Your task to perform on an android device: all mails in gmail Image 0: 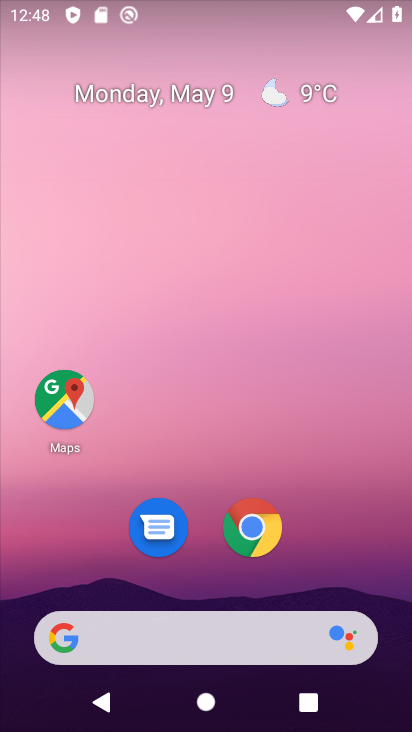
Step 0: drag from (207, 577) to (227, 48)
Your task to perform on an android device: all mails in gmail Image 1: 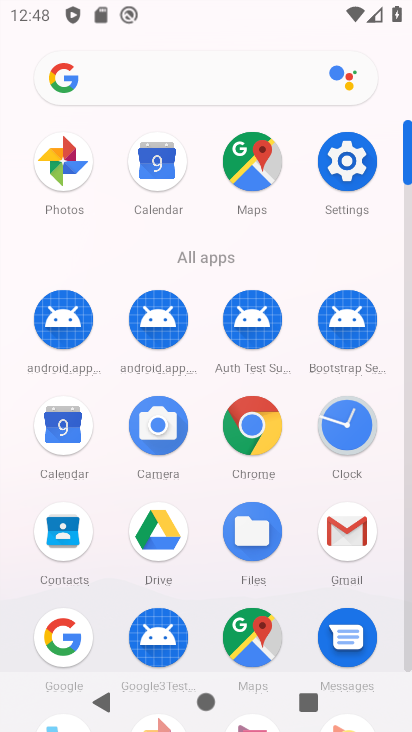
Step 1: click (348, 529)
Your task to perform on an android device: all mails in gmail Image 2: 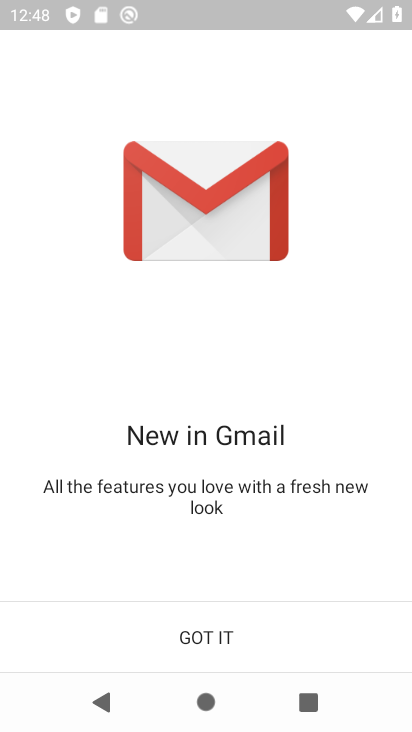
Step 2: click (236, 643)
Your task to perform on an android device: all mails in gmail Image 3: 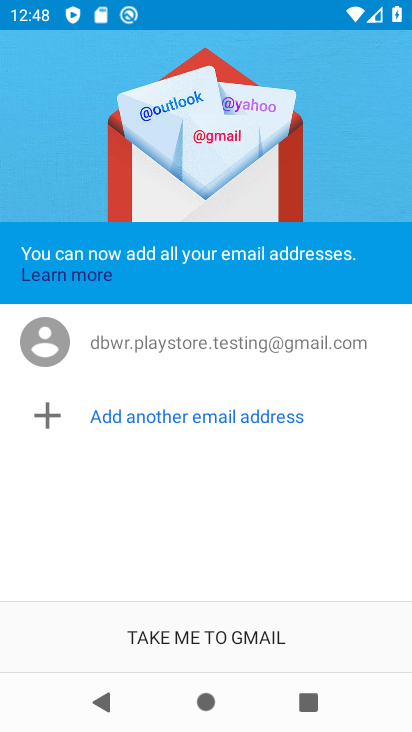
Step 3: click (235, 641)
Your task to perform on an android device: all mails in gmail Image 4: 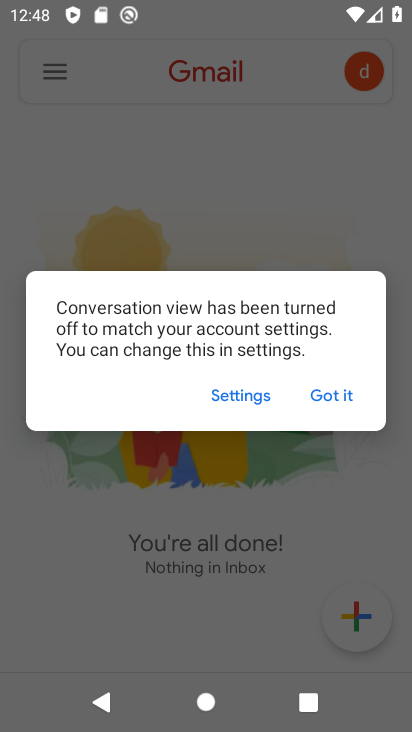
Step 4: click (326, 391)
Your task to perform on an android device: all mails in gmail Image 5: 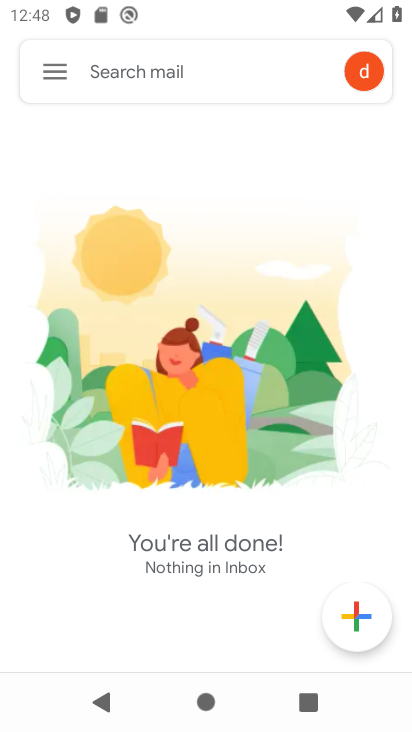
Step 5: click (40, 72)
Your task to perform on an android device: all mails in gmail Image 6: 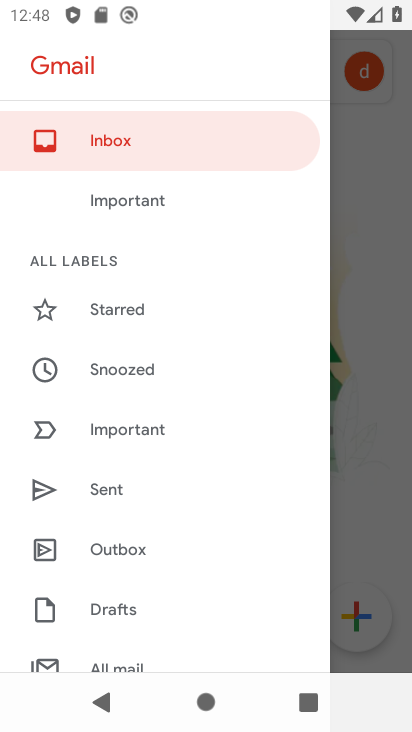
Step 6: drag from (161, 546) to (205, 185)
Your task to perform on an android device: all mails in gmail Image 7: 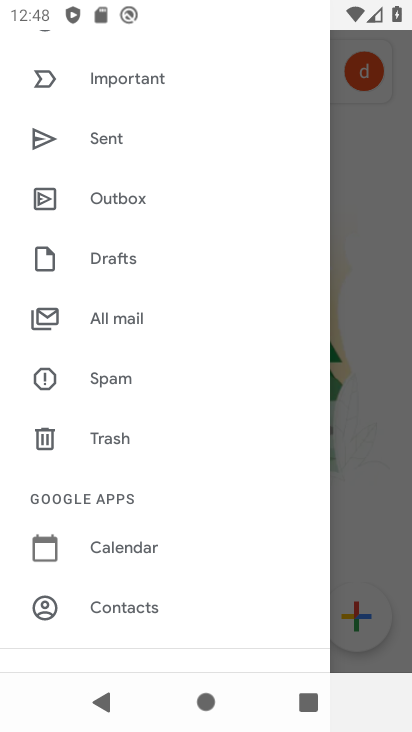
Step 7: click (124, 317)
Your task to perform on an android device: all mails in gmail Image 8: 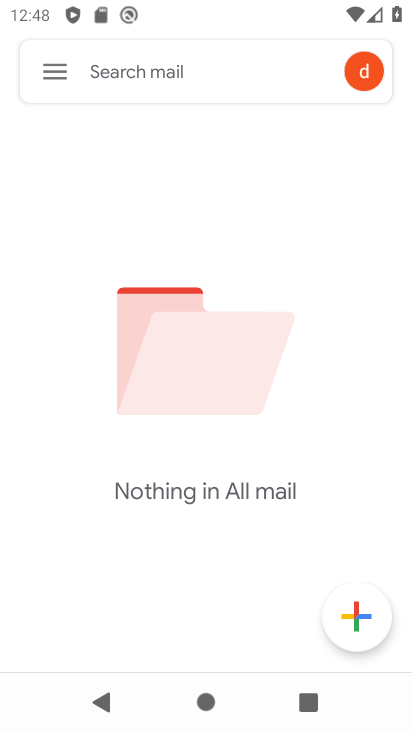
Step 8: task complete